Your task to perform on an android device: toggle sleep mode Image 0: 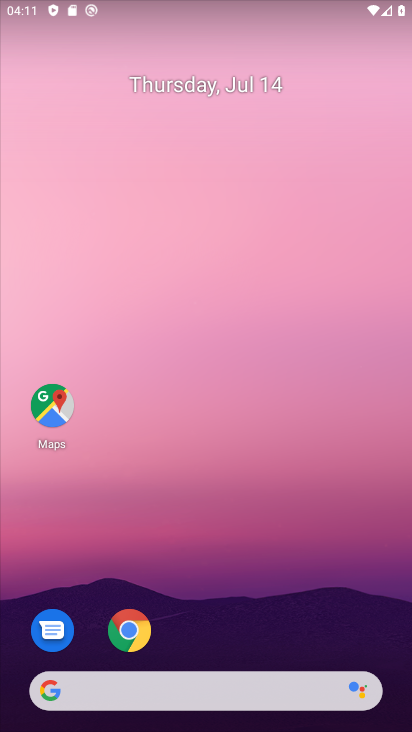
Step 0: press home button
Your task to perform on an android device: toggle sleep mode Image 1: 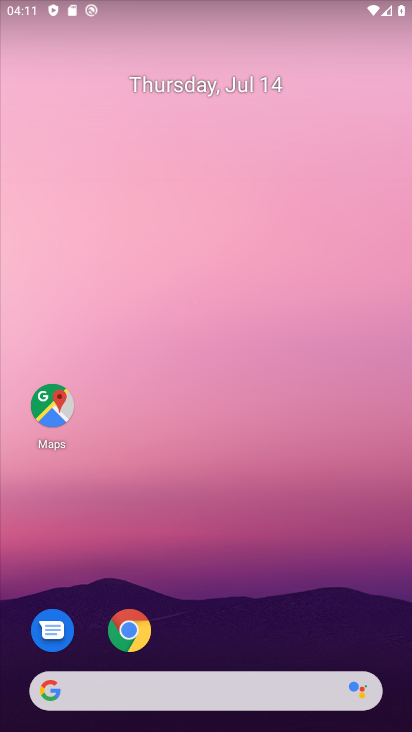
Step 1: drag from (221, 651) to (256, 29)
Your task to perform on an android device: toggle sleep mode Image 2: 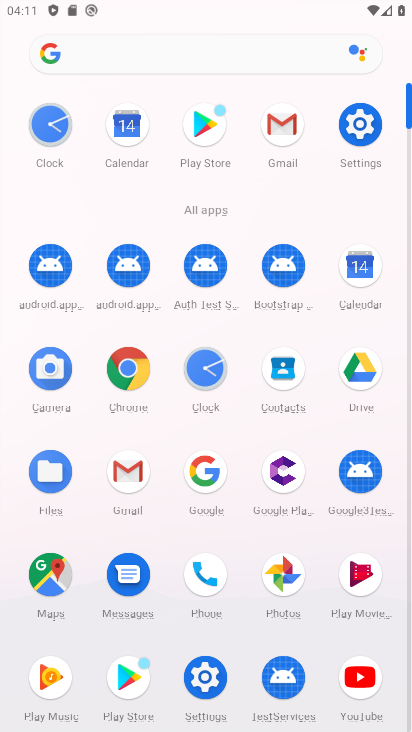
Step 2: click (357, 119)
Your task to perform on an android device: toggle sleep mode Image 3: 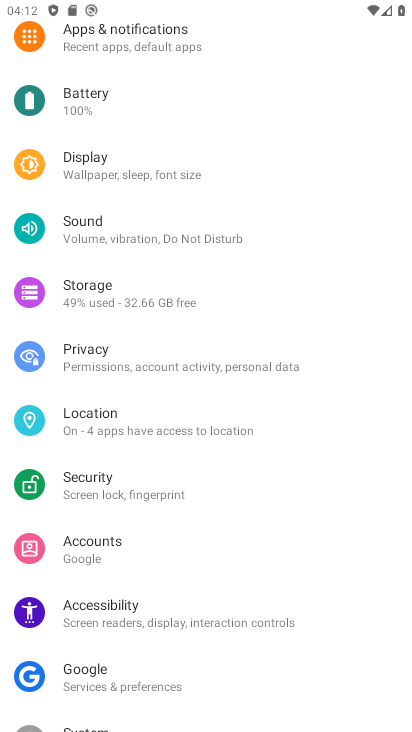
Step 3: click (129, 163)
Your task to perform on an android device: toggle sleep mode Image 4: 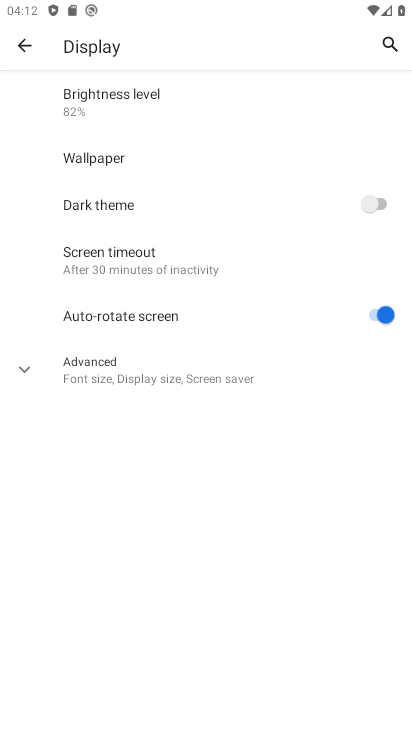
Step 4: click (26, 367)
Your task to perform on an android device: toggle sleep mode Image 5: 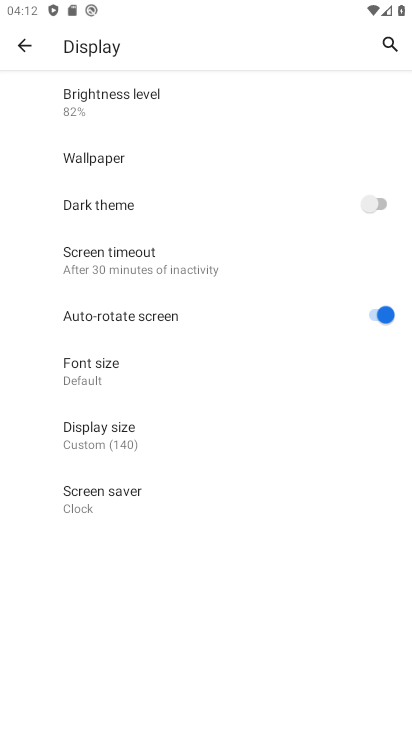
Step 5: task complete